Your task to perform on an android device: Search for the best rated kitchen reno kits on Lowes.com Image 0: 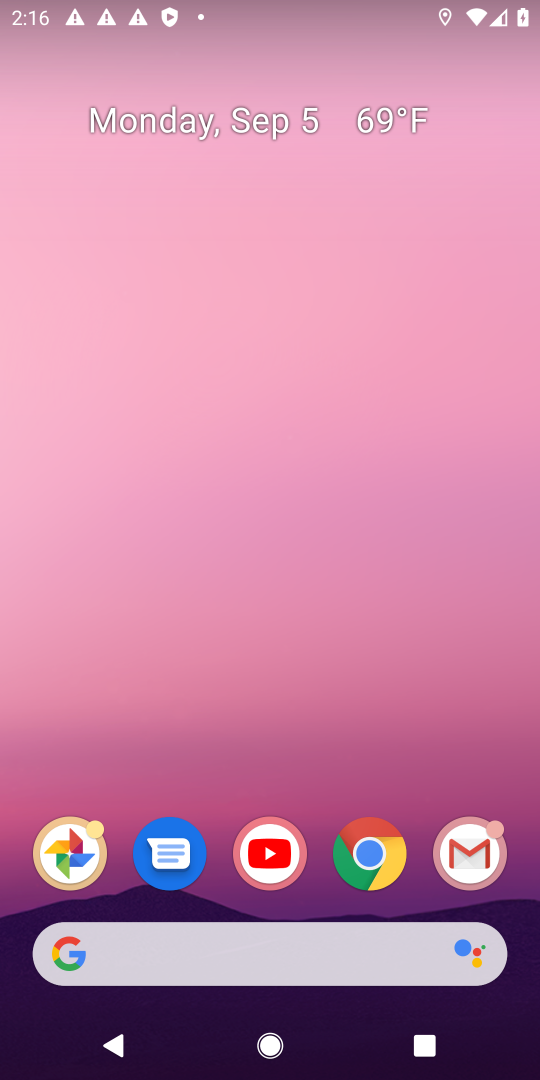
Step 0: drag from (216, 935) to (285, 179)
Your task to perform on an android device: Search for the best rated kitchen reno kits on Lowes.com Image 1: 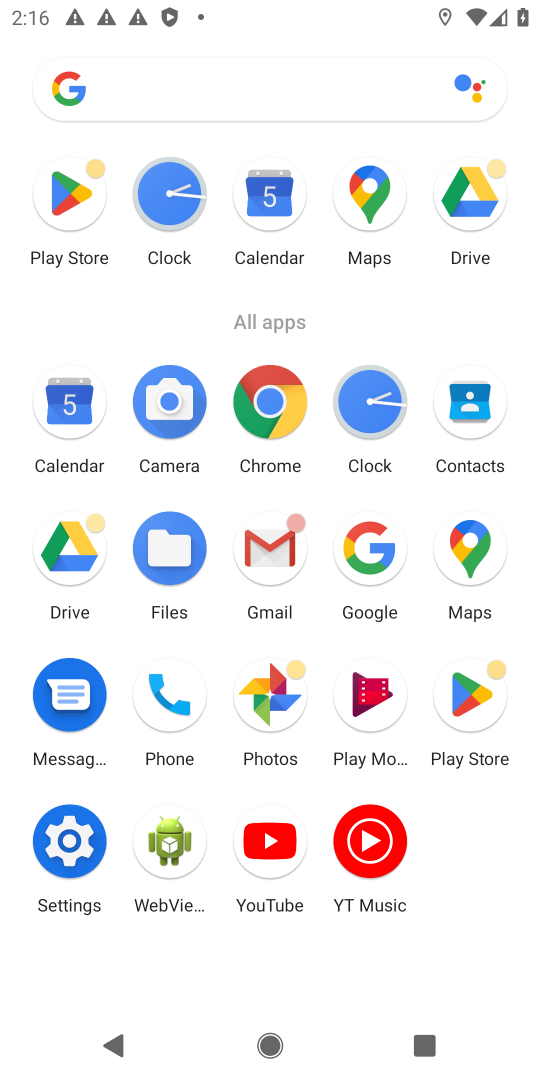
Step 1: click (345, 551)
Your task to perform on an android device: Search for the best rated kitchen reno kits on Lowes.com Image 2: 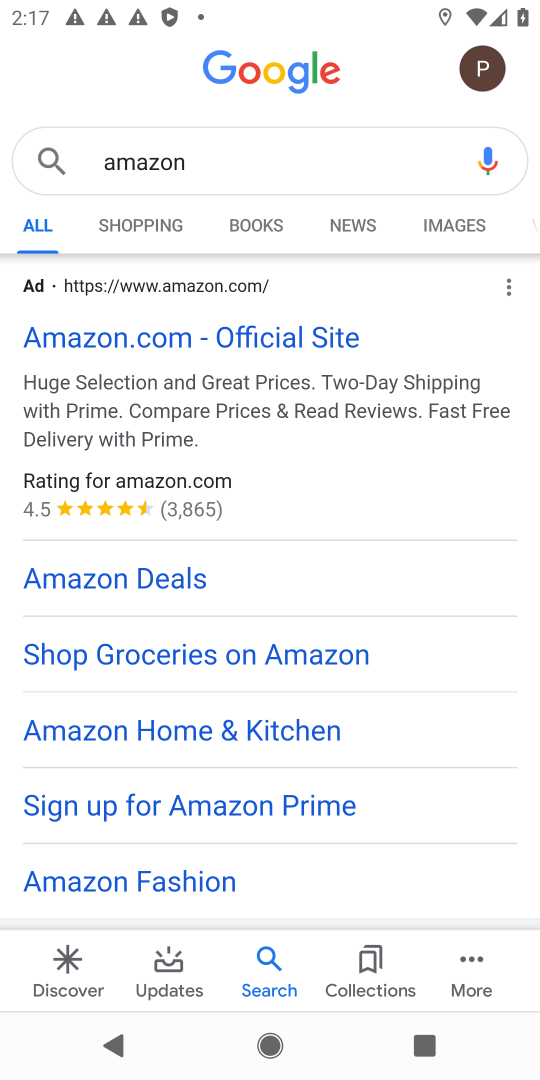
Step 2: click (168, 166)
Your task to perform on an android device: Search for the best rated kitchen reno kits on Lowes.com Image 3: 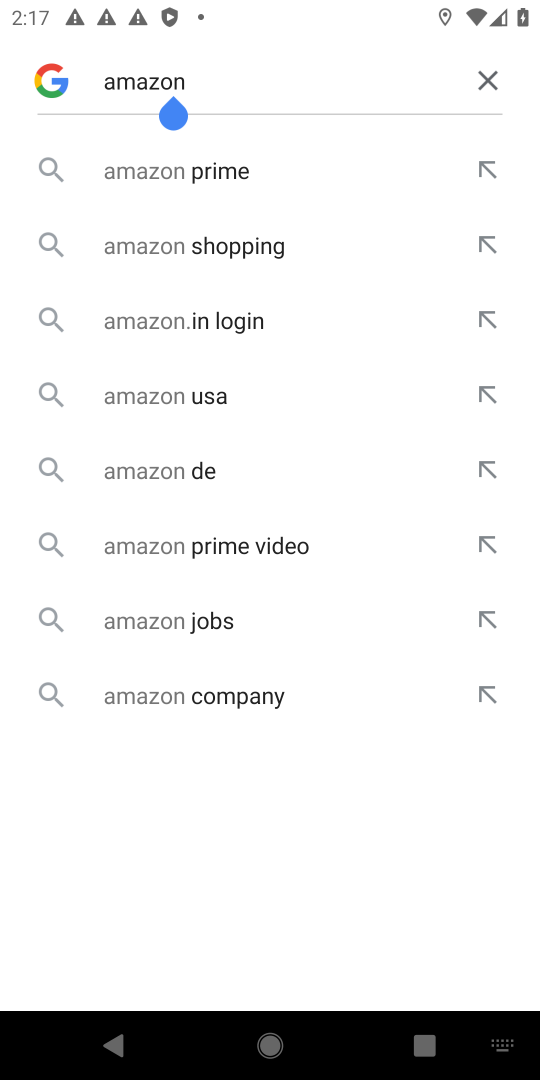
Step 3: click (492, 87)
Your task to perform on an android device: Search for the best rated kitchen reno kits on Lowes.com Image 4: 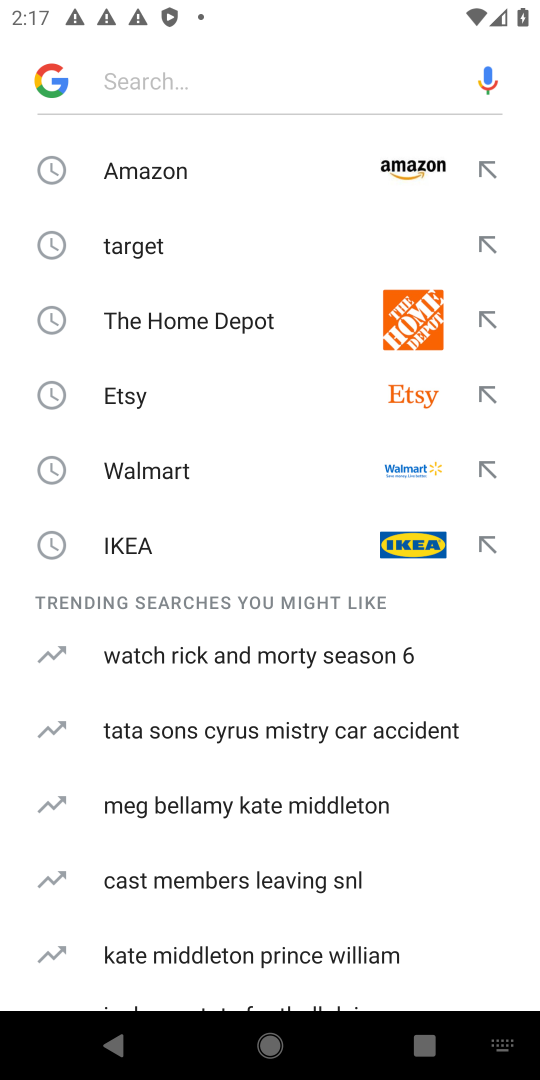
Step 4: type "Lowes.com"
Your task to perform on an android device: Search for the best rated kitchen reno kits on Lowes.com Image 5: 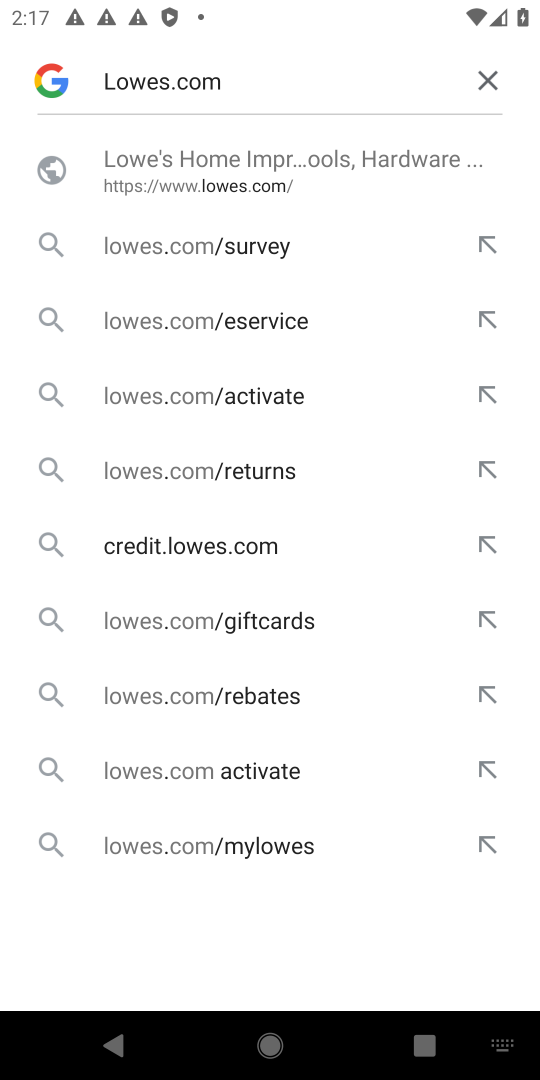
Step 5: click (121, 172)
Your task to perform on an android device: Search for the best rated kitchen reno kits on Lowes.com Image 6: 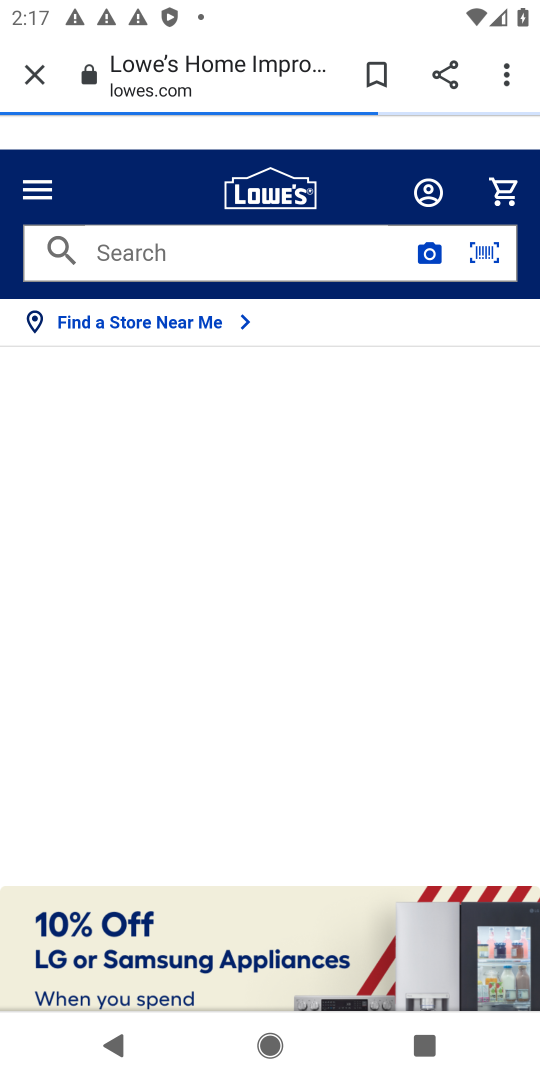
Step 6: click (160, 257)
Your task to perform on an android device: Search for the best rated kitchen reno kits on Lowes.com Image 7: 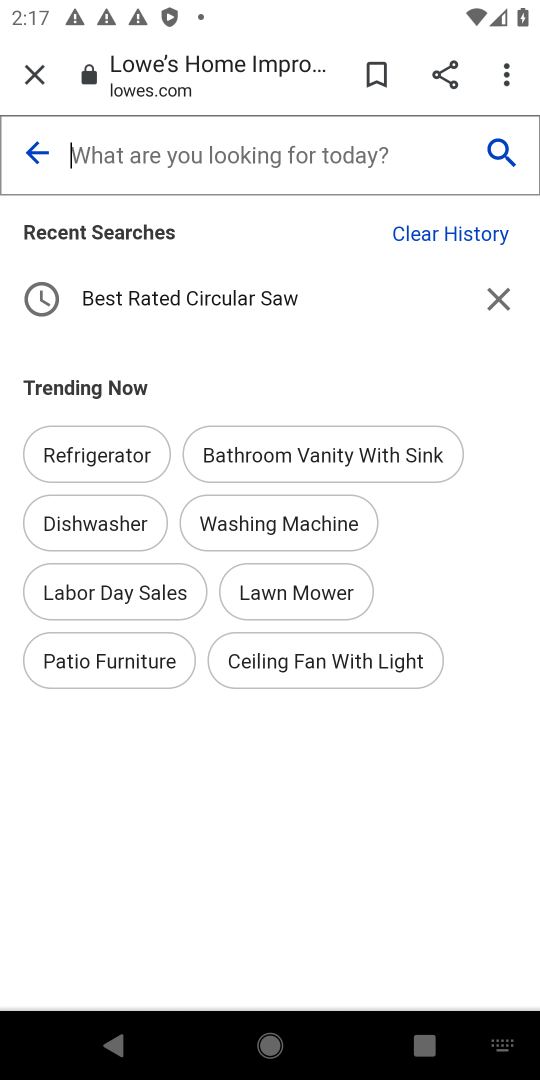
Step 7: type "best rated kitchen reno kits "
Your task to perform on an android device: Search for the best rated kitchen reno kits on Lowes.com Image 8: 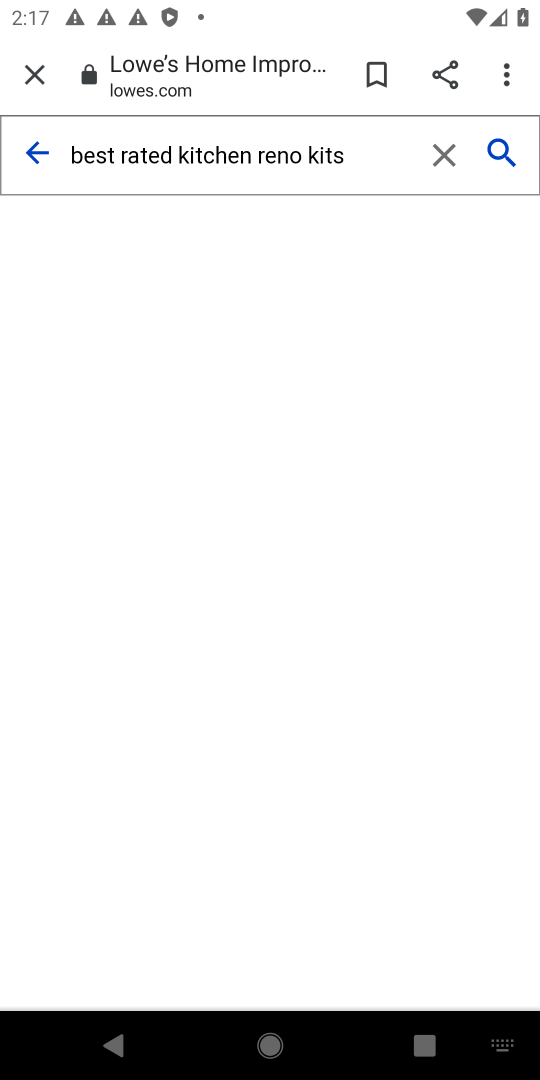
Step 8: click (488, 155)
Your task to perform on an android device: Search for the best rated kitchen reno kits on Lowes.com Image 9: 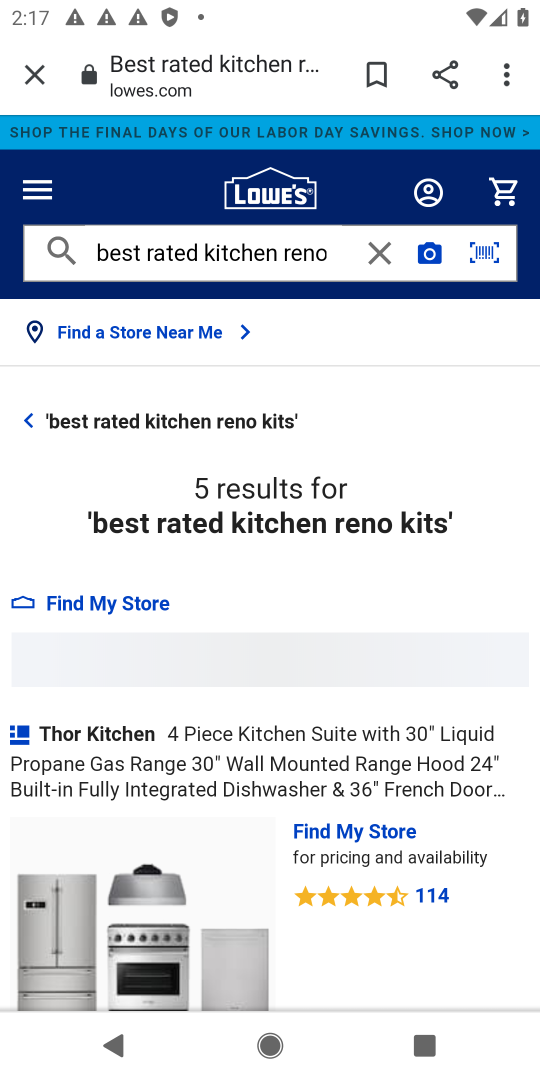
Step 9: task complete